Your task to perform on an android device: Look up the best rated bike seats on Target Image 0: 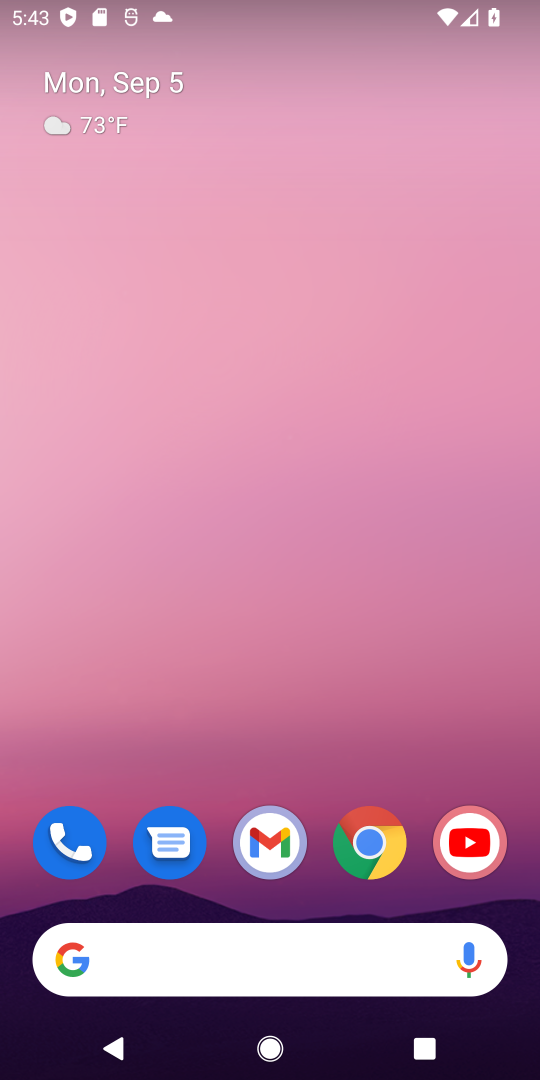
Step 0: click (371, 845)
Your task to perform on an android device: Look up the best rated bike seats on Target Image 1: 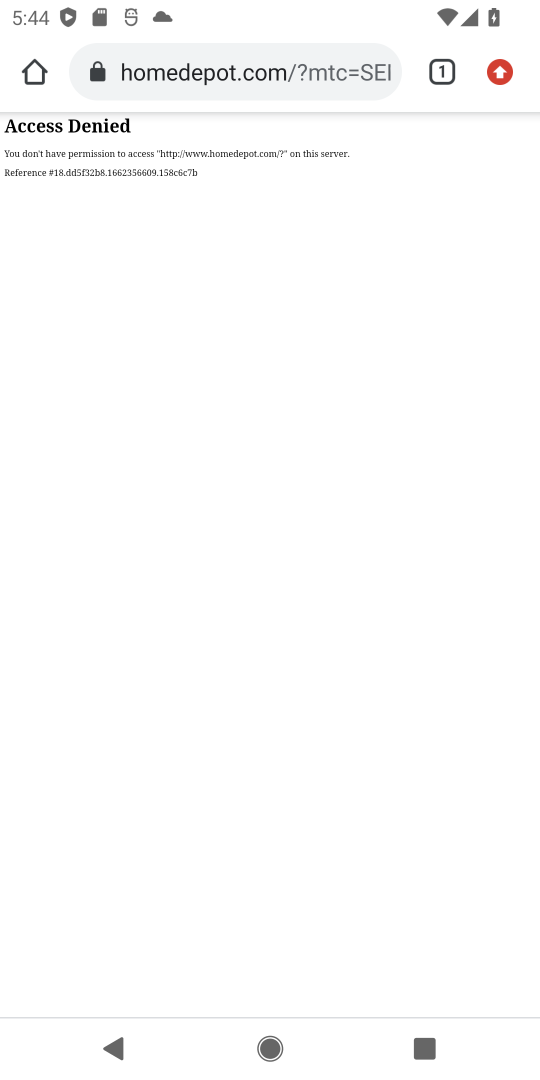
Step 1: click (341, 72)
Your task to perform on an android device: Look up the best rated bike seats on Target Image 2: 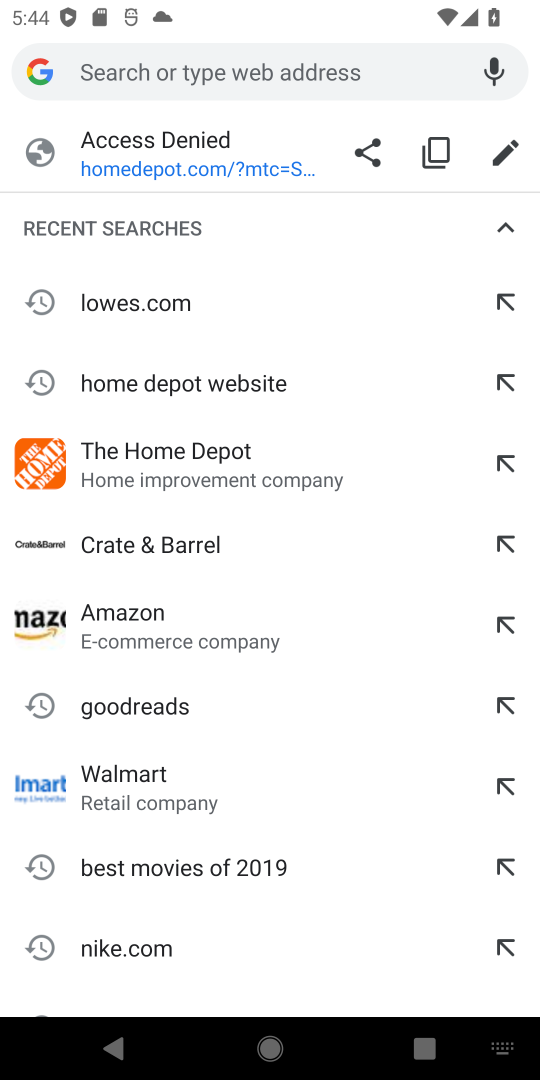
Step 2: type "Target"
Your task to perform on an android device: Look up the best rated bike seats on Target Image 3: 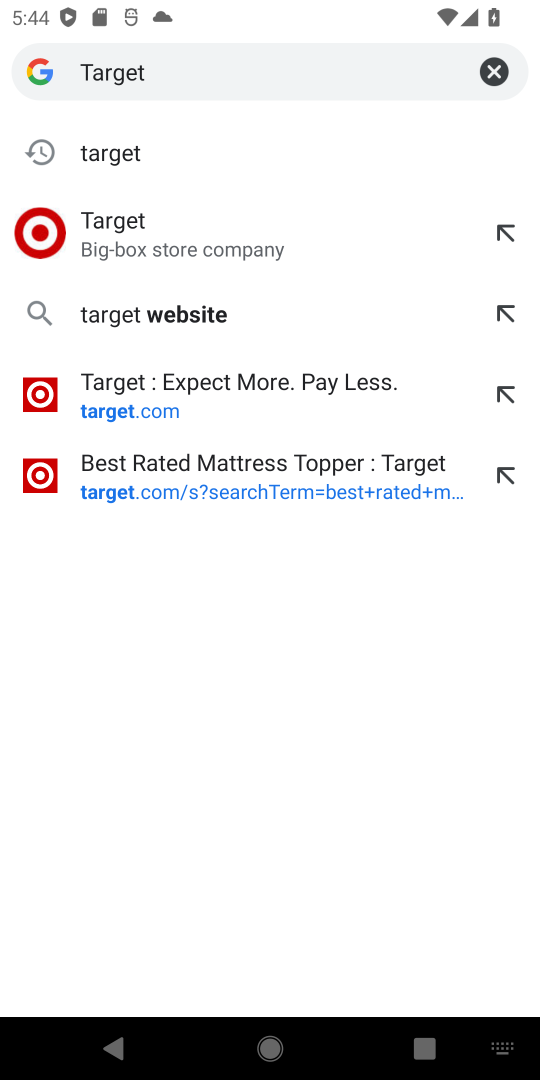
Step 3: click (119, 158)
Your task to perform on an android device: Look up the best rated bike seats on Target Image 4: 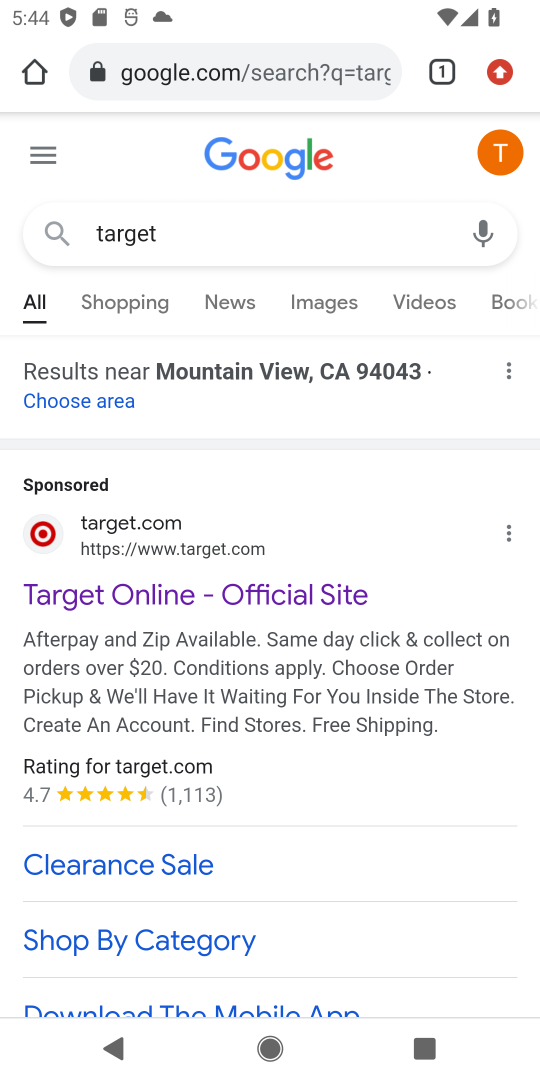
Step 4: drag from (299, 859) to (362, 480)
Your task to perform on an android device: Look up the best rated bike seats on Target Image 5: 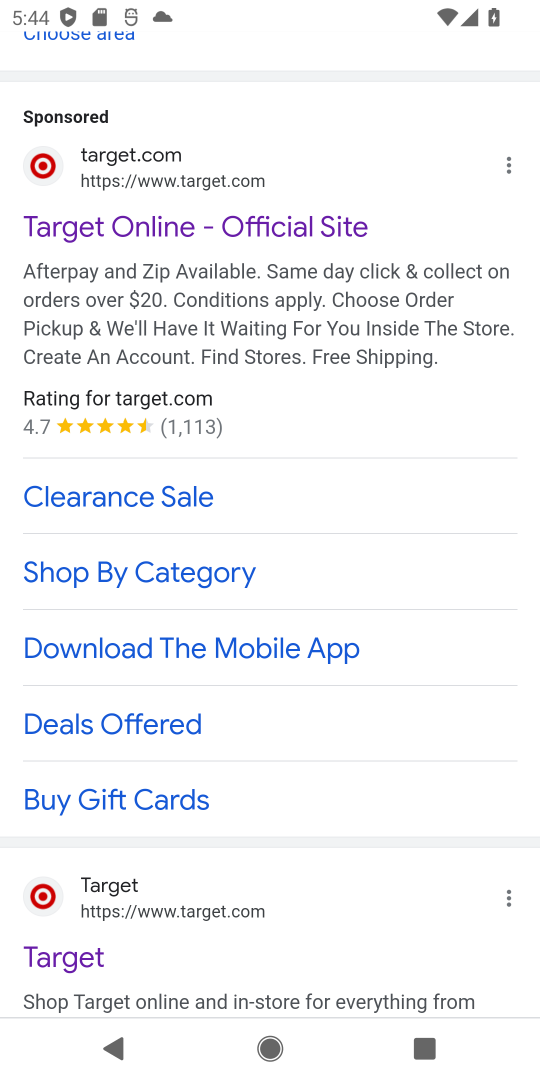
Step 5: click (116, 972)
Your task to perform on an android device: Look up the best rated bike seats on Target Image 6: 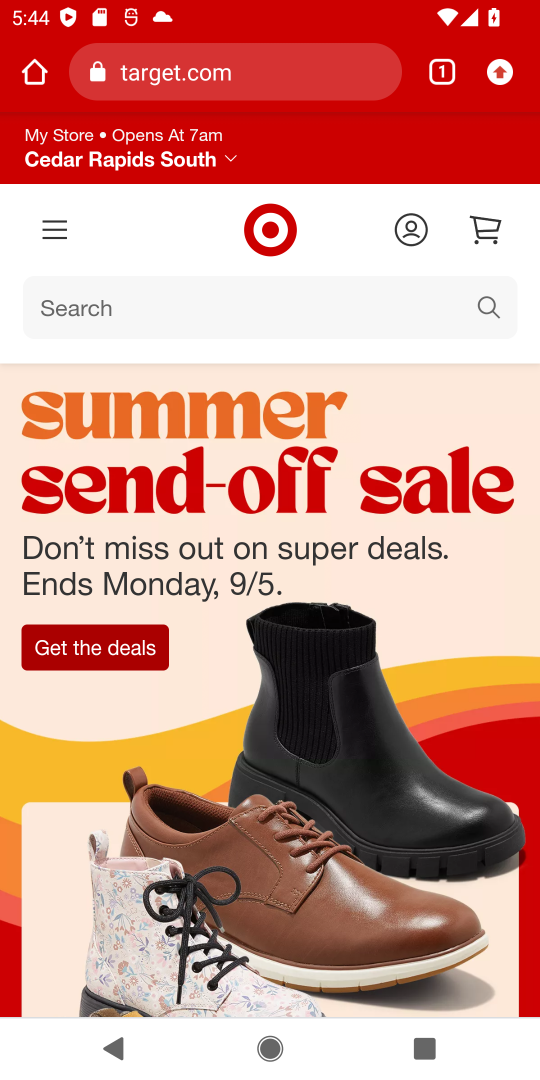
Step 6: click (265, 311)
Your task to perform on an android device: Look up the best rated bike seats on Target Image 7: 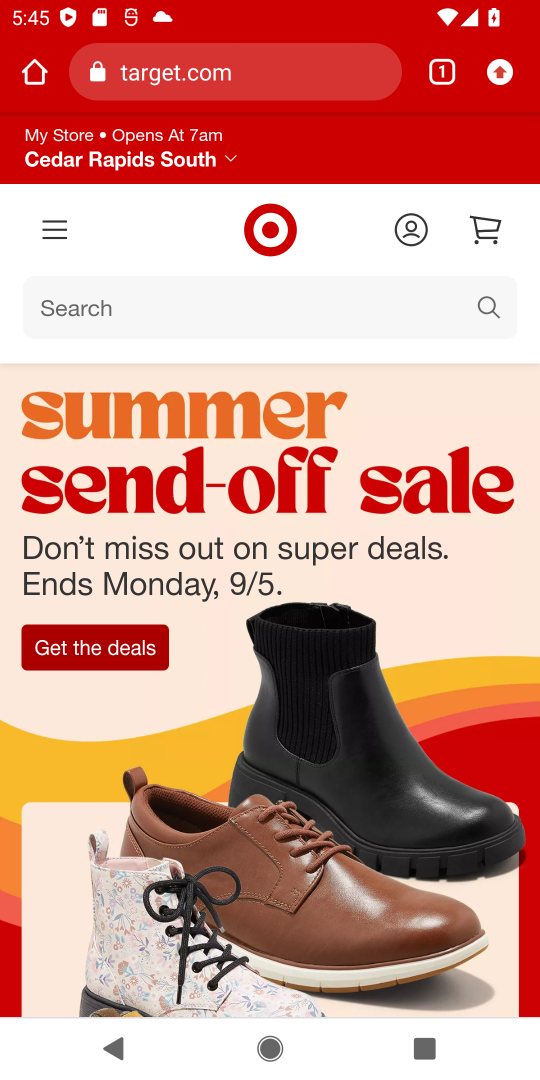
Step 7: click (198, 312)
Your task to perform on an android device: Look up the best rated bike seats on Target Image 8: 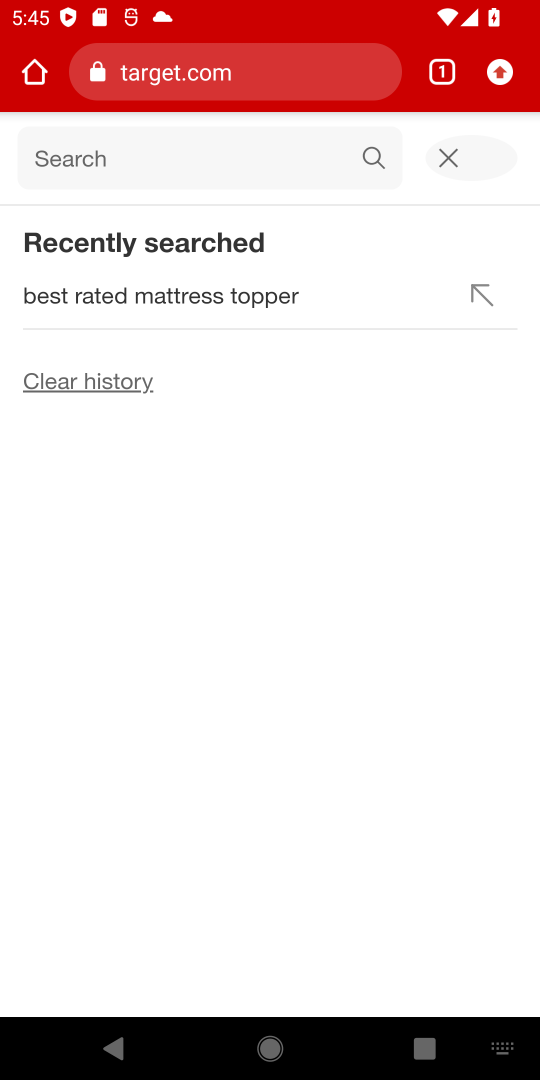
Step 8: type "best rated bike seats"
Your task to perform on an android device: Look up the best rated bike seats on Target Image 9: 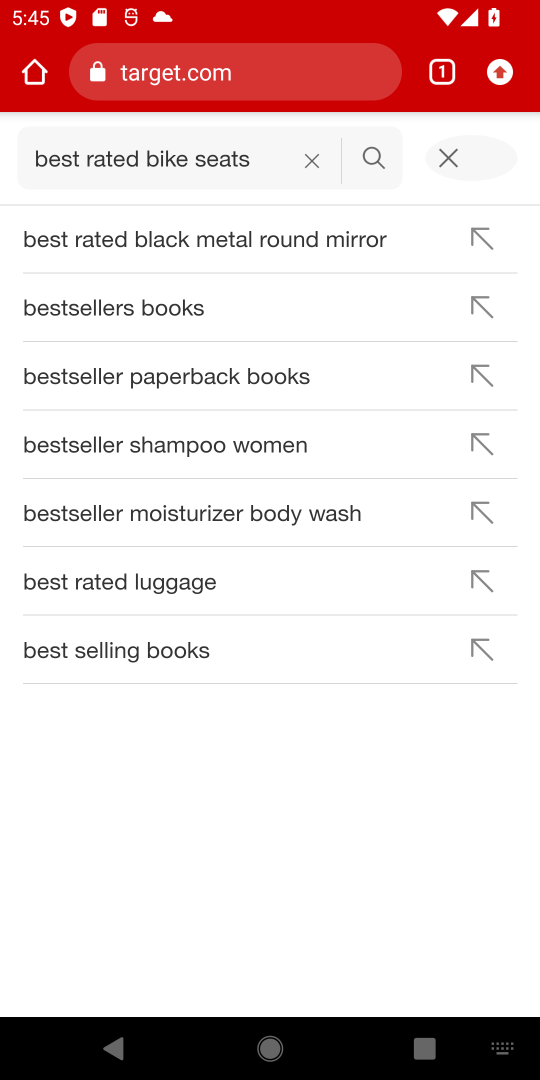
Step 9: click (378, 163)
Your task to perform on an android device: Look up the best rated bike seats on Target Image 10: 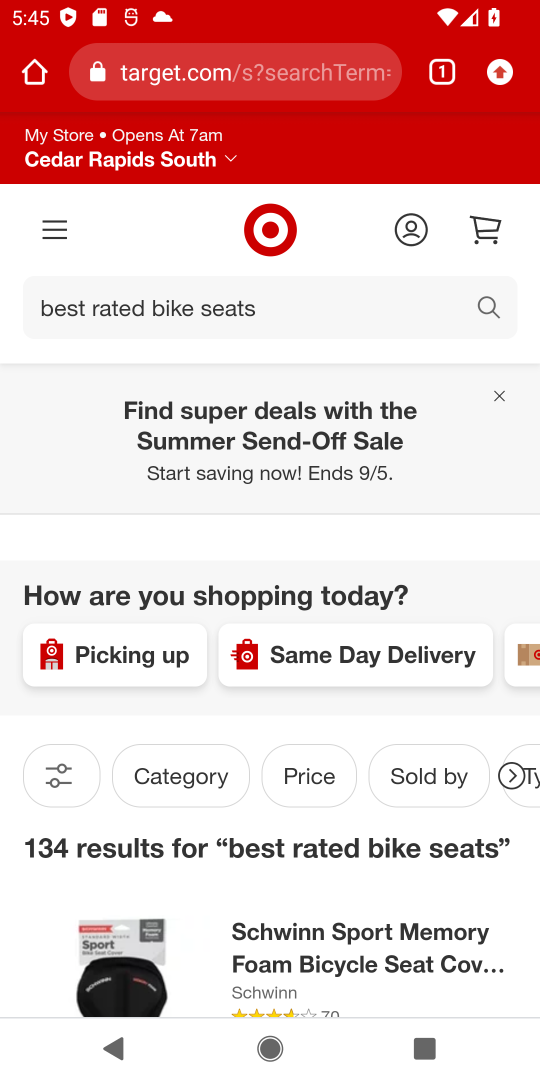
Step 10: task complete